Your task to perform on an android device: Go to notification settings Image 0: 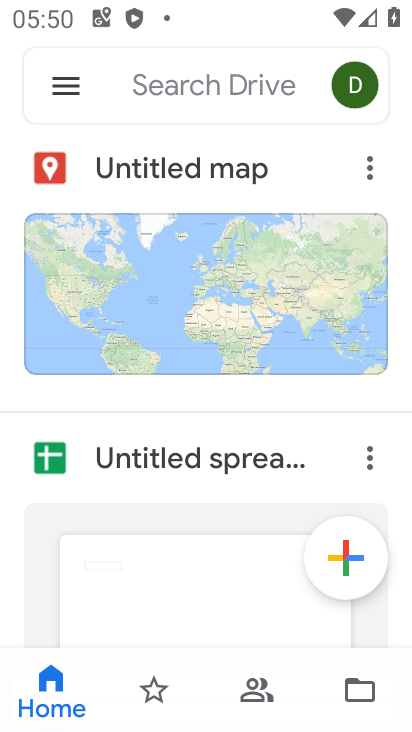
Step 0: press home button
Your task to perform on an android device: Go to notification settings Image 1: 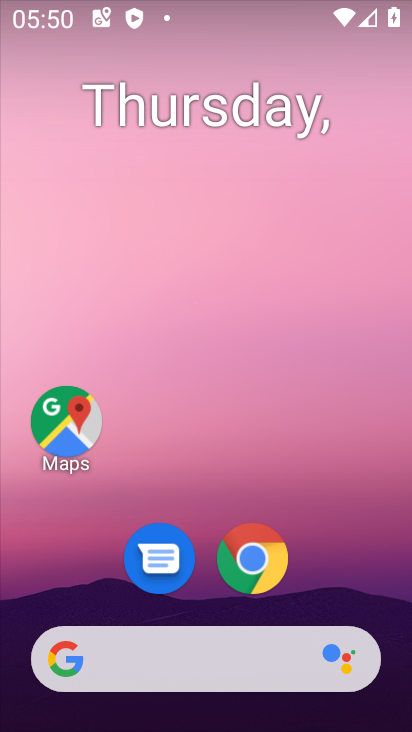
Step 1: drag from (317, 601) to (342, 68)
Your task to perform on an android device: Go to notification settings Image 2: 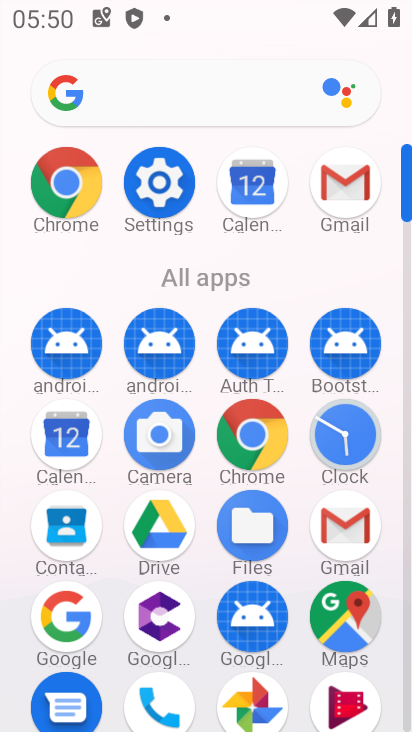
Step 2: click (161, 193)
Your task to perform on an android device: Go to notification settings Image 3: 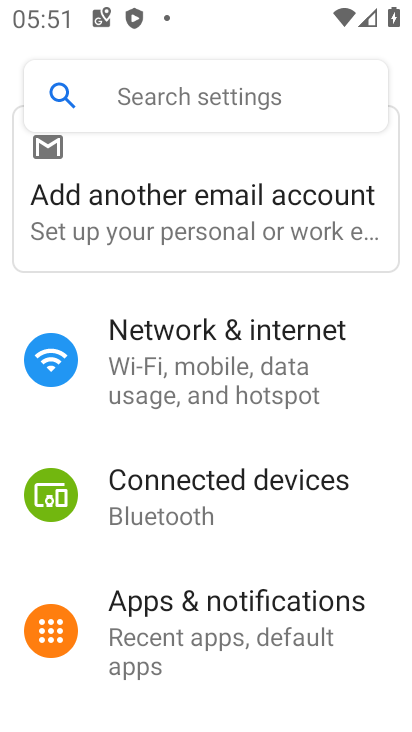
Step 3: click (169, 190)
Your task to perform on an android device: Go to notification settings Image 4: 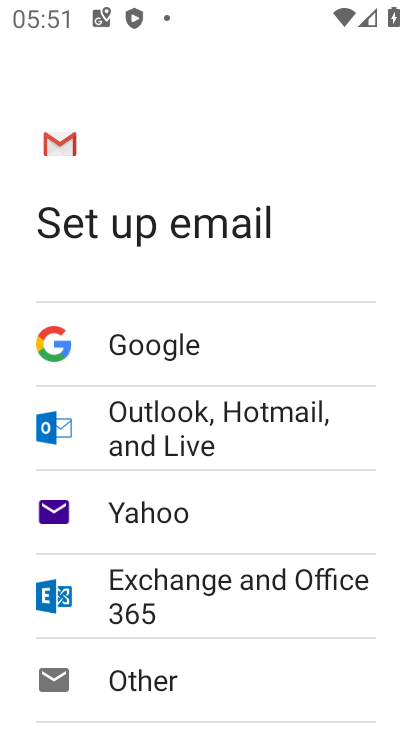
Step 4: press back button
Your task to perform on an android device: Go to notification settings Image 5: 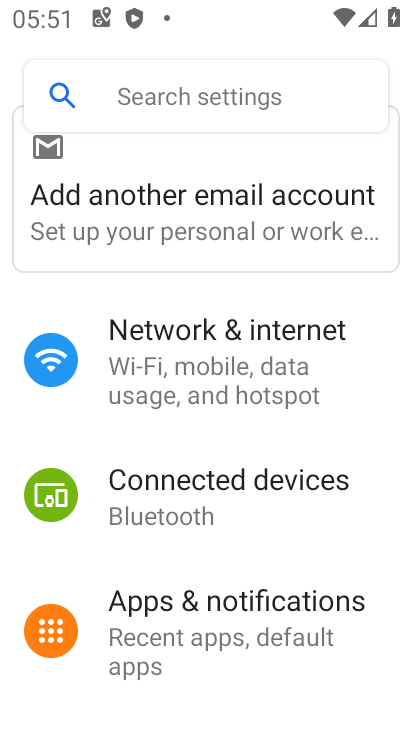
Step 5: click (142, 646)
Your task to perform on an android device: Go to notification settings Image 6: 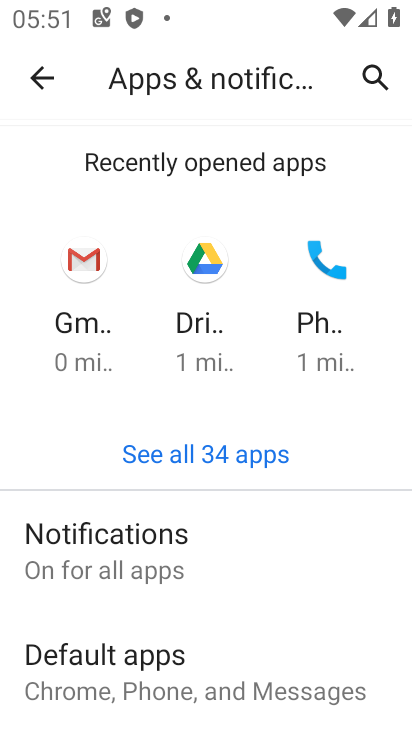
Step 6: drag from (219, 655) to (271, 335)
Your task to perform on an android device: Go to notification settings Image 7: 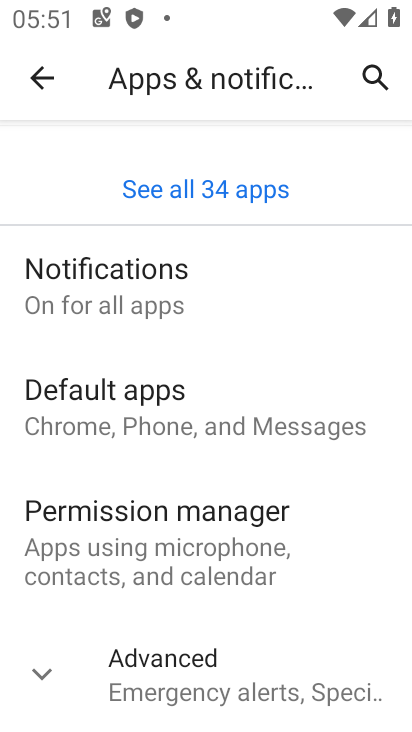
Step 7: click (141, 303)
Your task to perform on an android device: Go to notification settings Image 8: 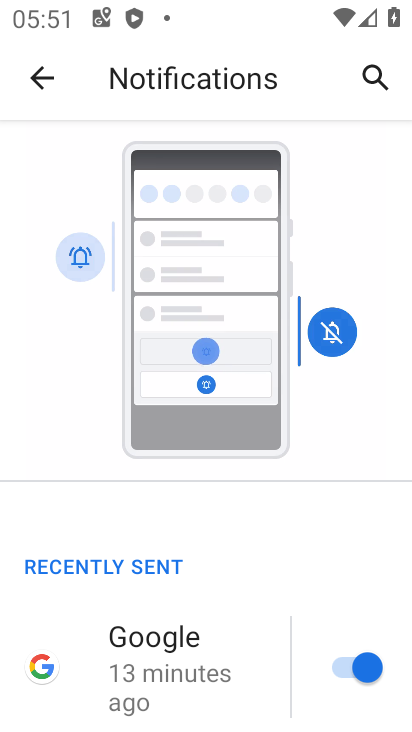
Step 8: task complete